Your task to perform on an android device: Do I have any events this weekend? Image 0: 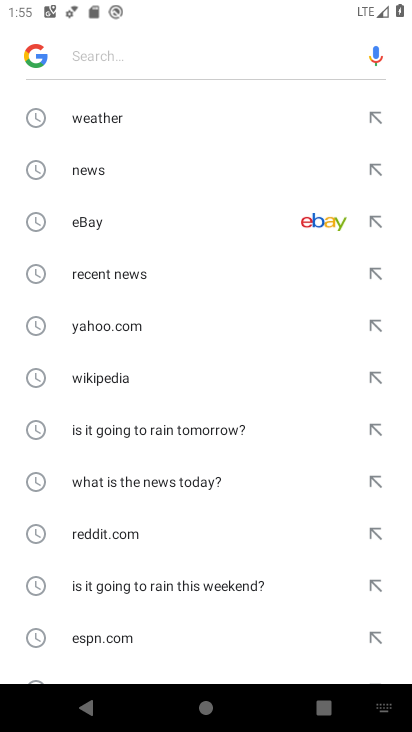
Step 0: press home button
Your task to perform on an android device: Do I have any events this weekend? Image 1: 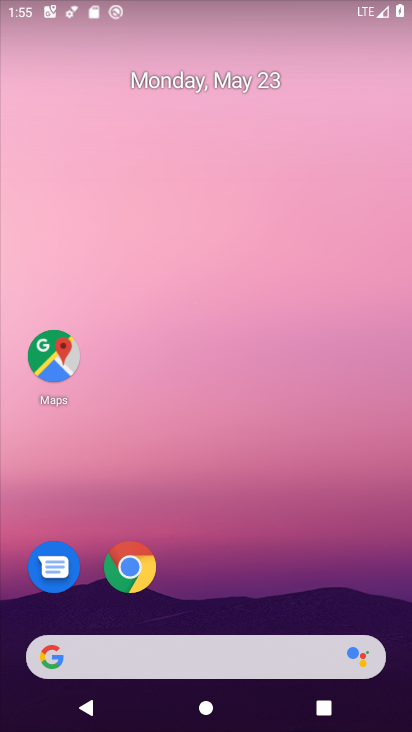
Step 1: drag from (248, 520) to (278, 277)
Your task to perform on an android device: Do I have any events this weekend? Image 2: 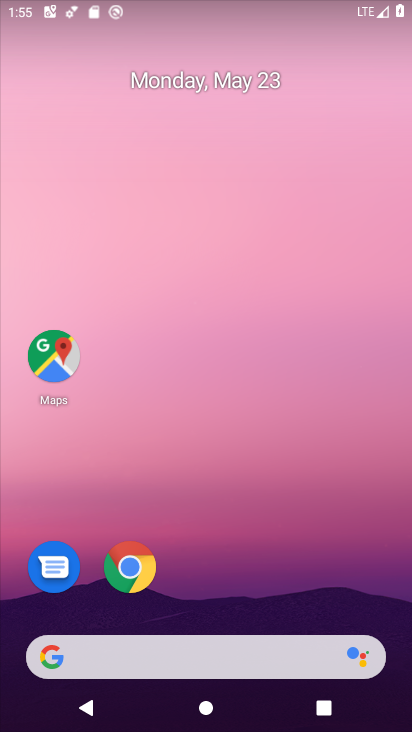
Step 2: drag from (270, 570) to (293, 53)
Your task to perform on an android device: Do I have any events this weekend? Image 3: 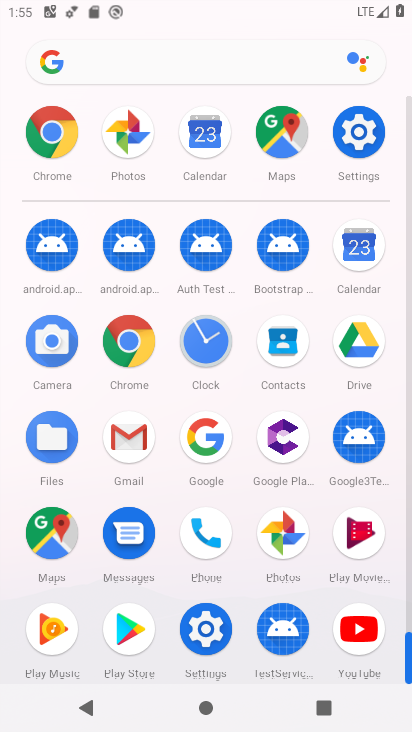
Step 3: click (378, 254)
Your task to perform on an android device: Do I have any events this weekend? Image 4: 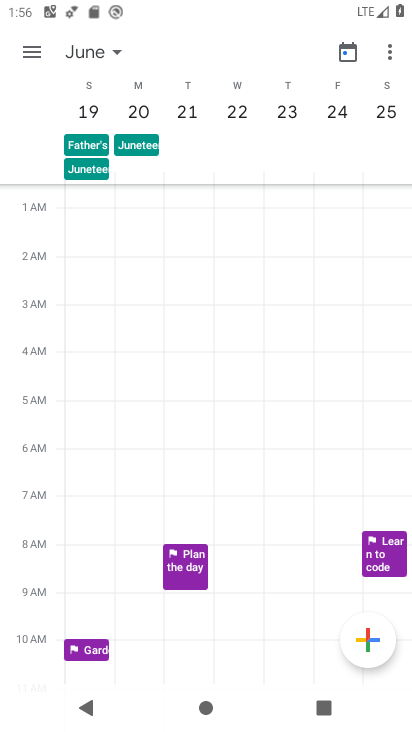
Step 4: click (112, 52)
Your task to perform on an android device: Do I have any events this weekend? Image 5: 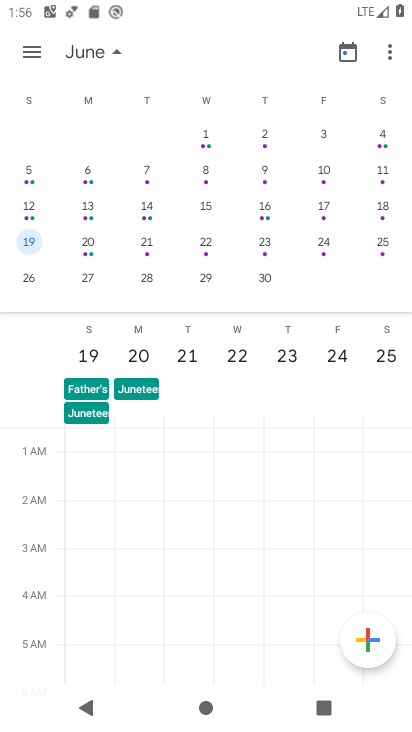
Step 5: click (118, 46)
Your task to perform on an android device: Do I have any events this weekend? Image 6: 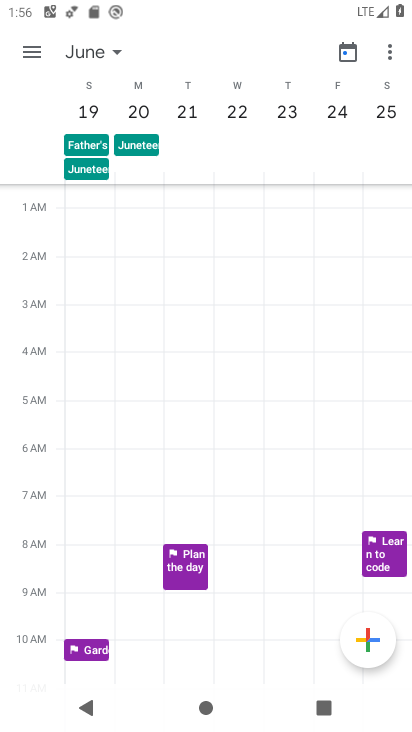
Step 6: task complete